Your task to perform on an android device: find photos in the google photos app Image 0: 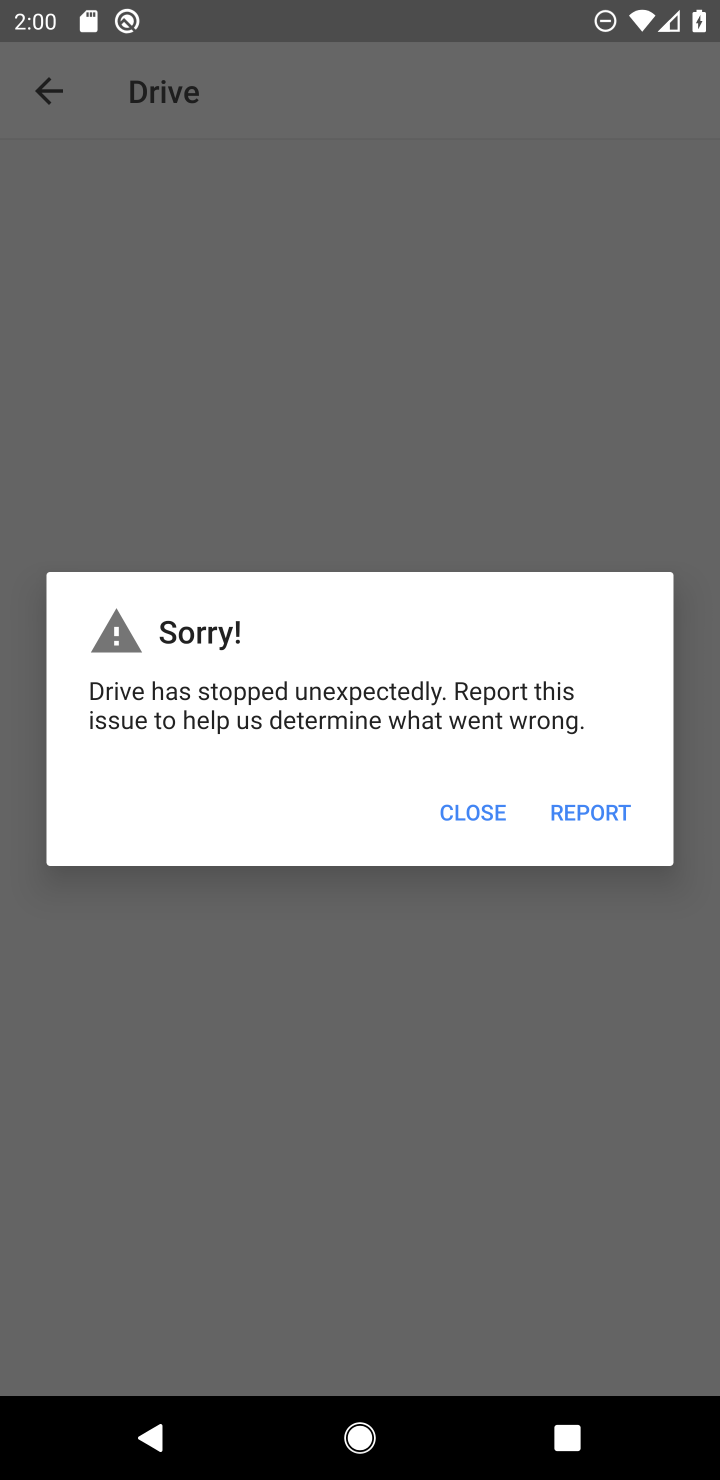
Step 0: press home button
Your task to perform on an android device: find photos in the google photos app Image 1: 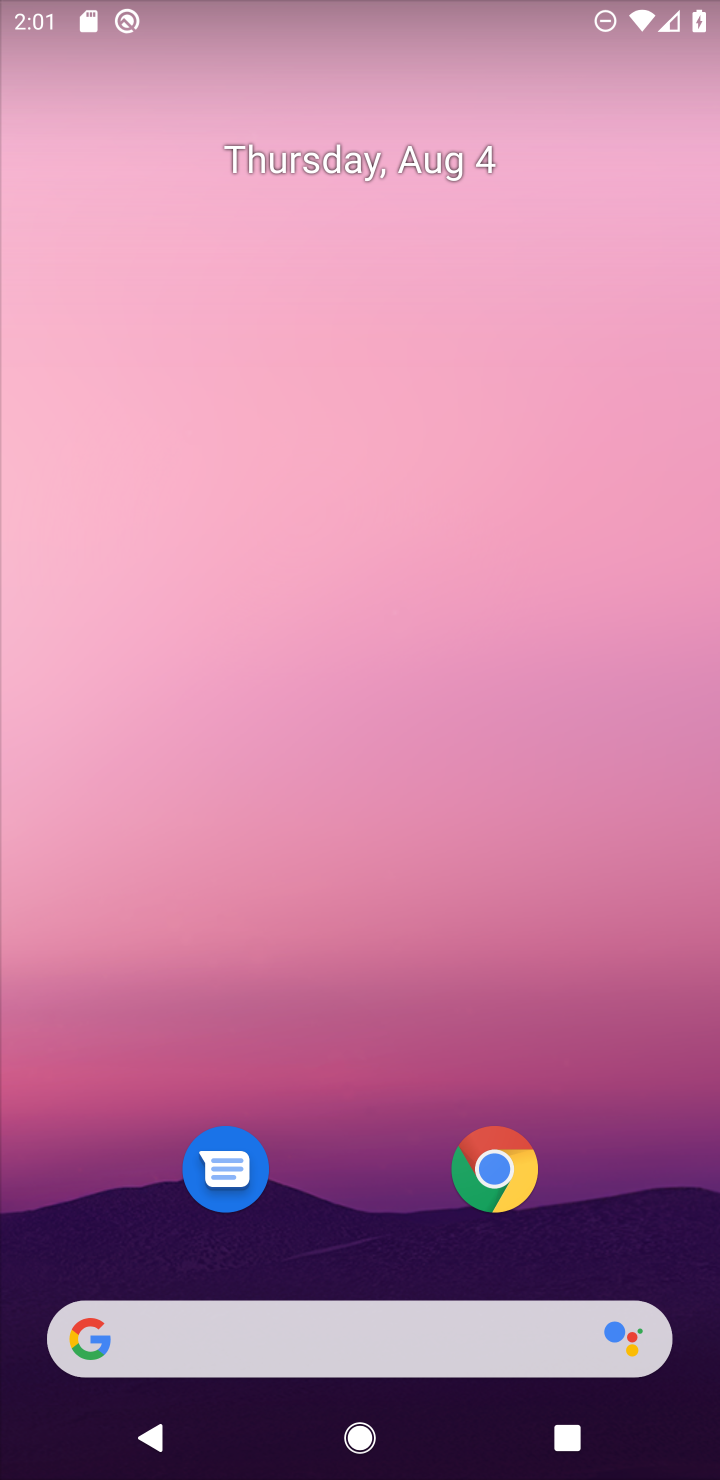
Step 1: drag from (376, 1162) to (416, 59)
Your task to perform on an android device: find photos in the google photos app Image 2: 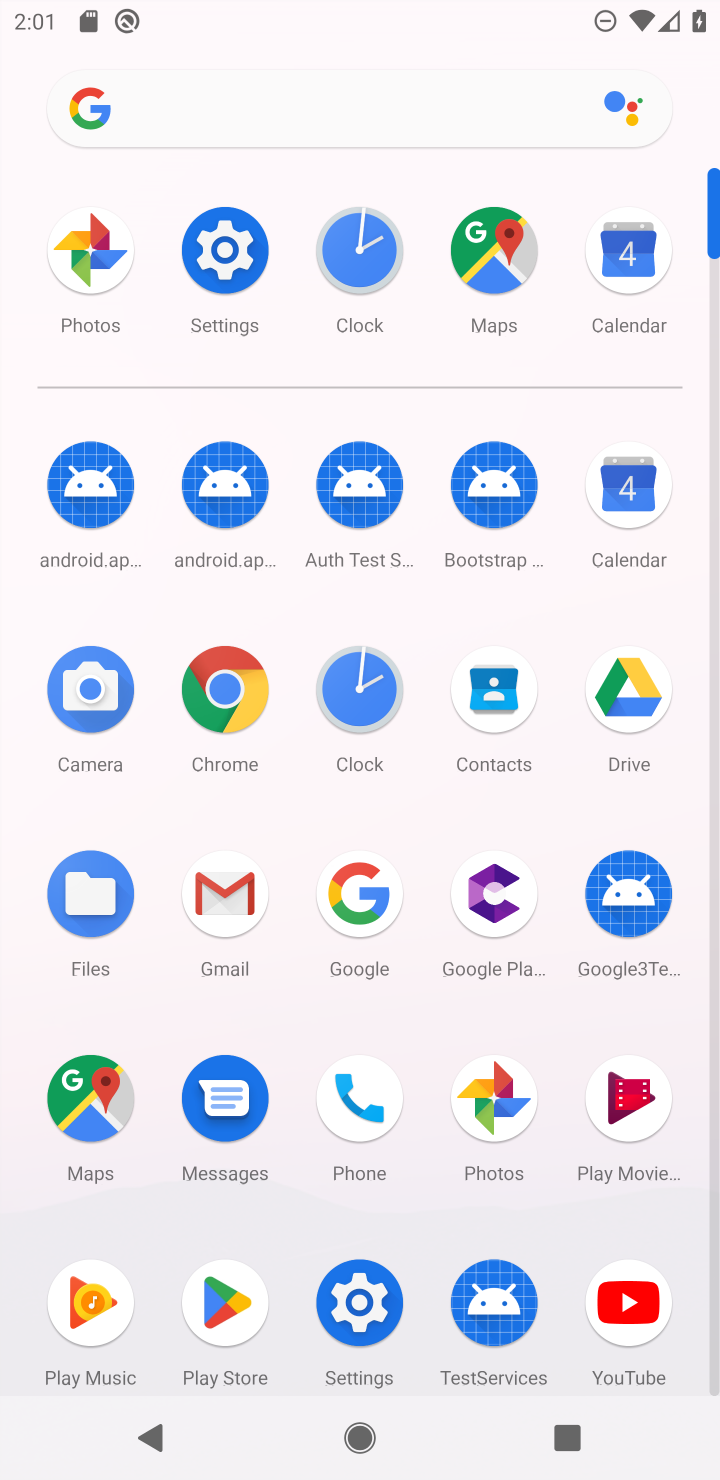
Step 2: click (498, 1101)
Your task to perform on an android device: find photos in the google photos app Image 3: 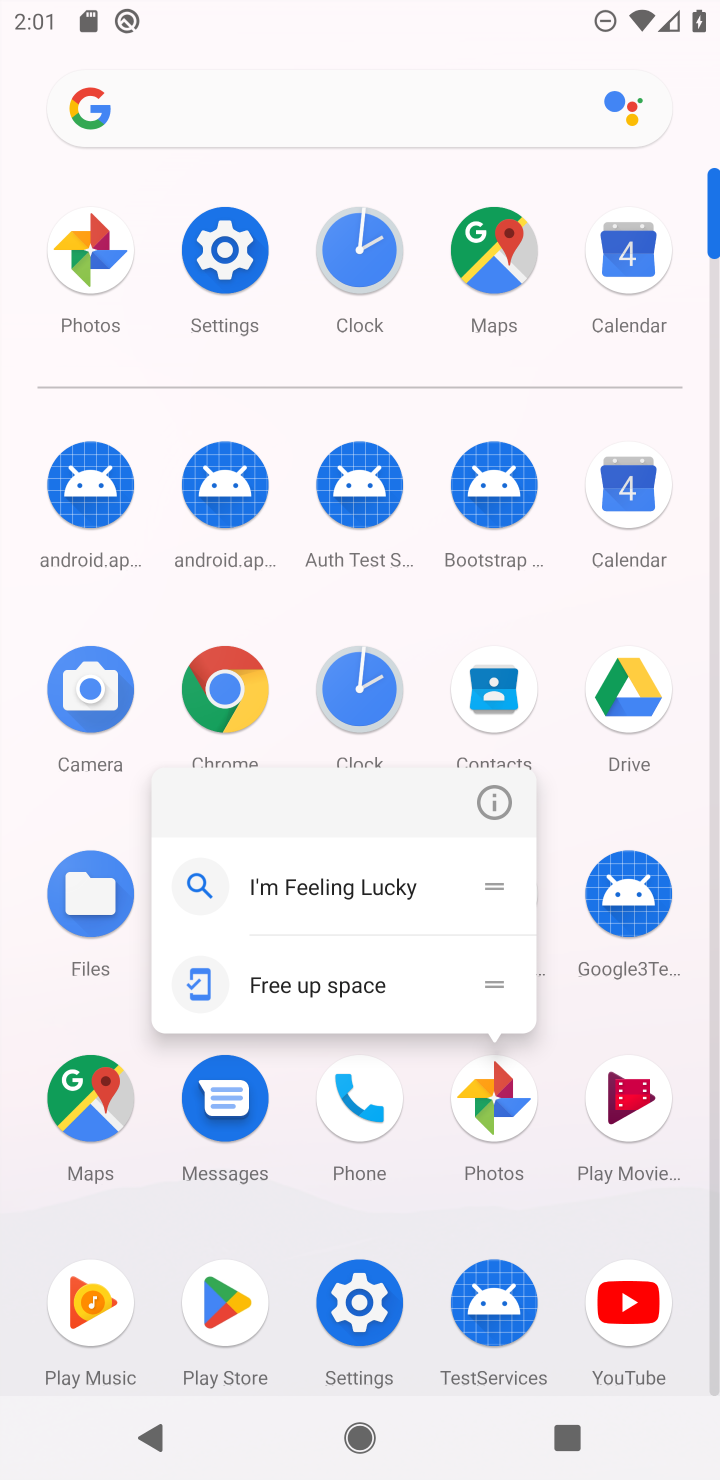
Step 3: click (498, 1101)
Your task to perform on an android device: find photos in the google photos app Image 4: 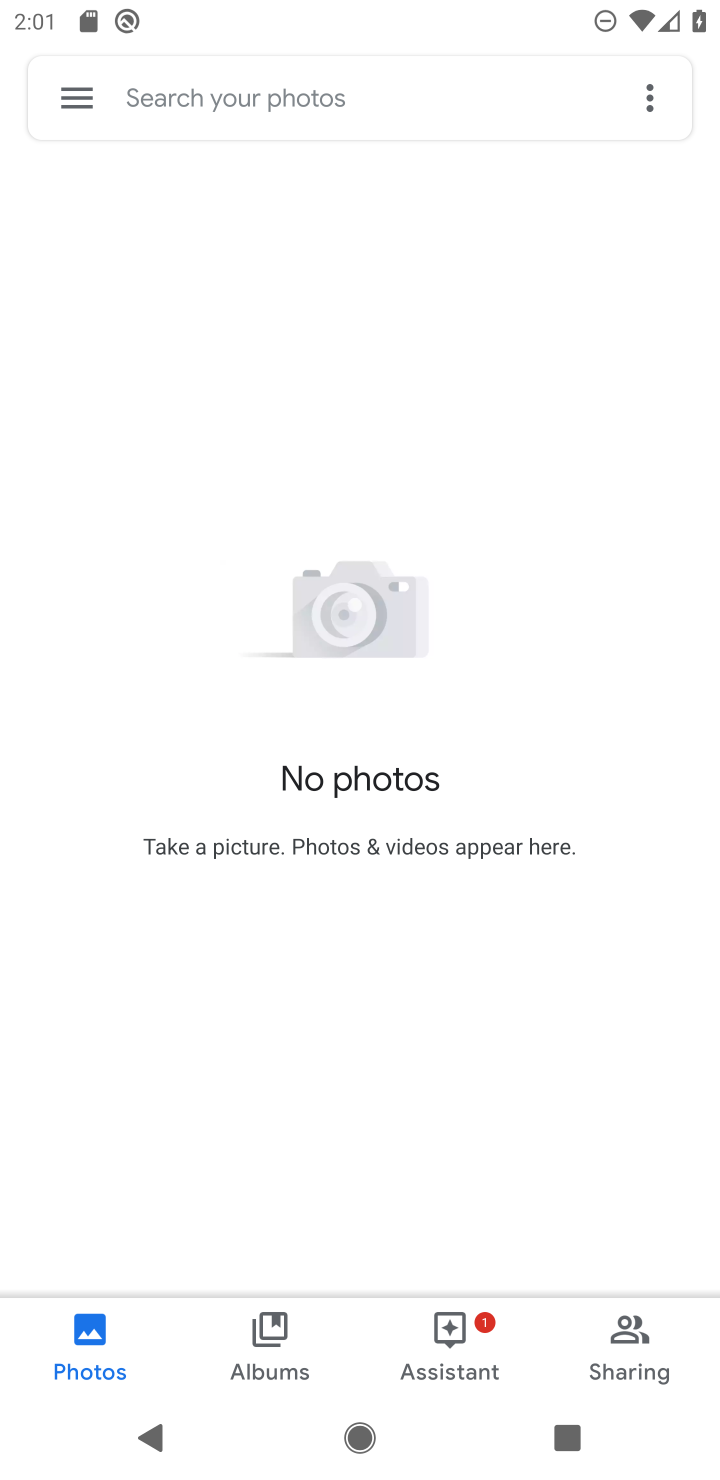
Step 4: click (91, 1355)
Your task to perform on an android device: find photos in the google photos app Image 5: 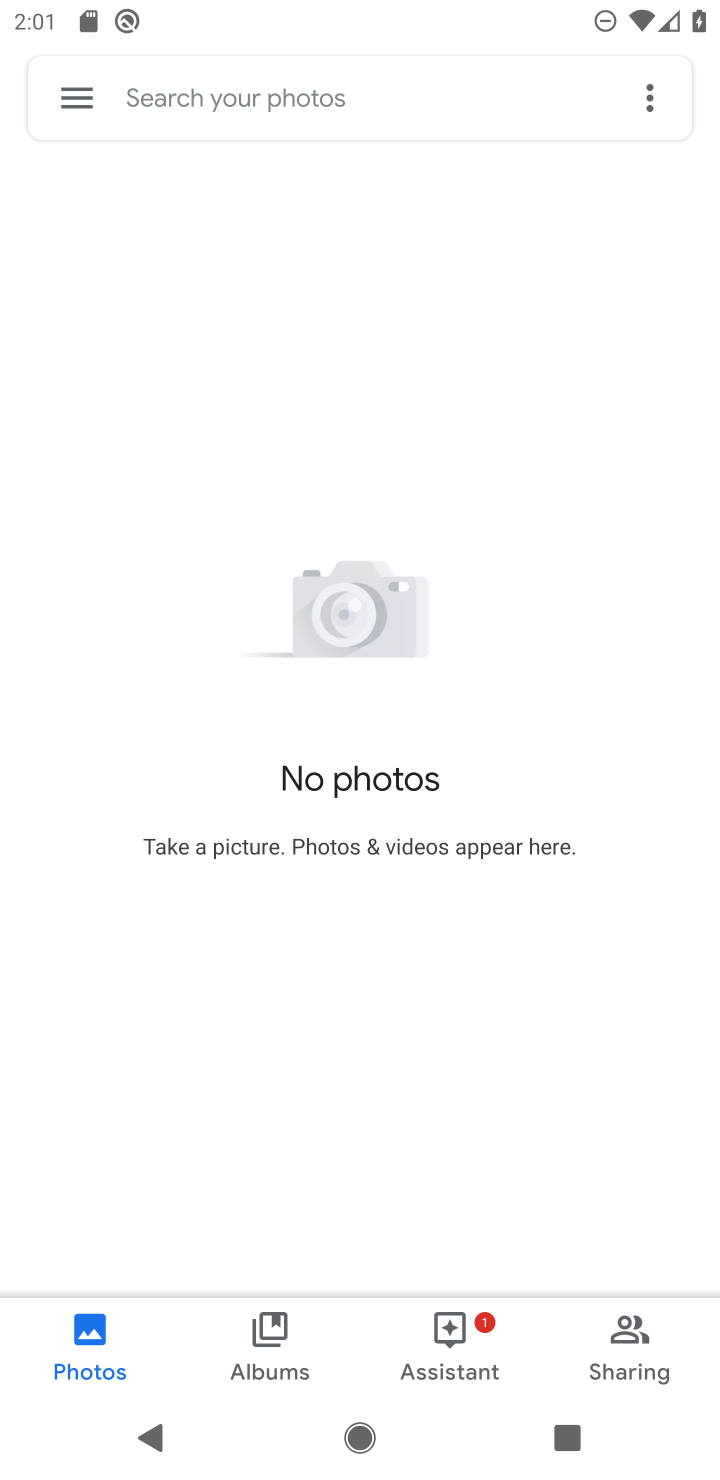
Step 5: task complete